Your task to perform on an android device: Go to privacy settings Image 0: 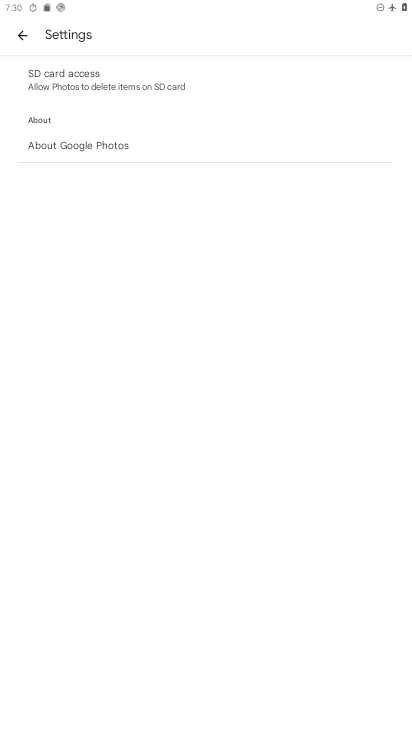
Step 0: press home button
Your task to perform on an android device: Go to privacy settings Image 1: 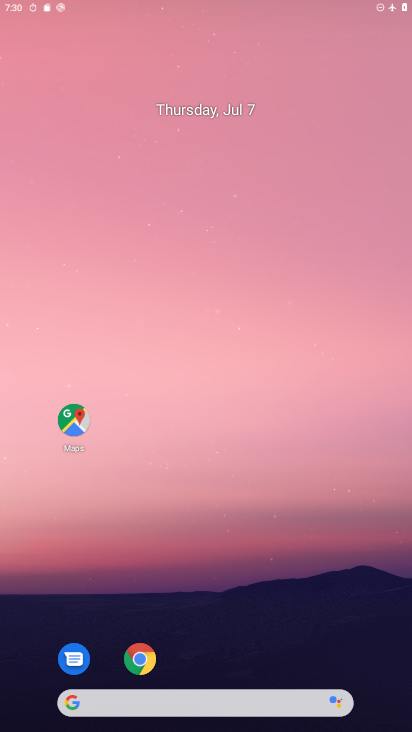
Step 1: drag from (406, 673) to (305, 80)
Your task to perform on an android device: Go to privacy settings Image 2: 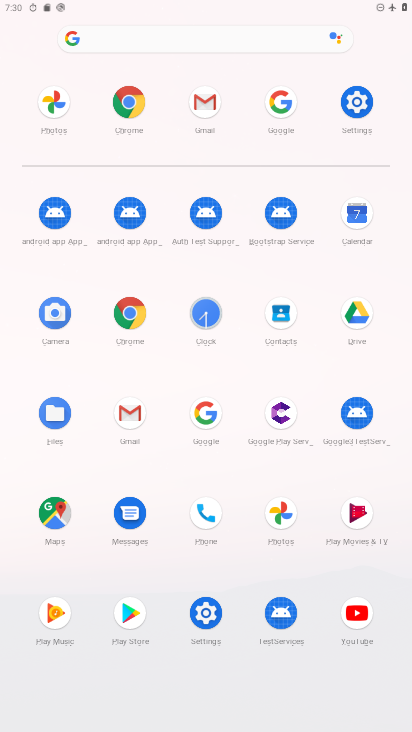
Step 2: click (211, 613)
Your task to perform on an android device: Go to privacy settings Image 3: 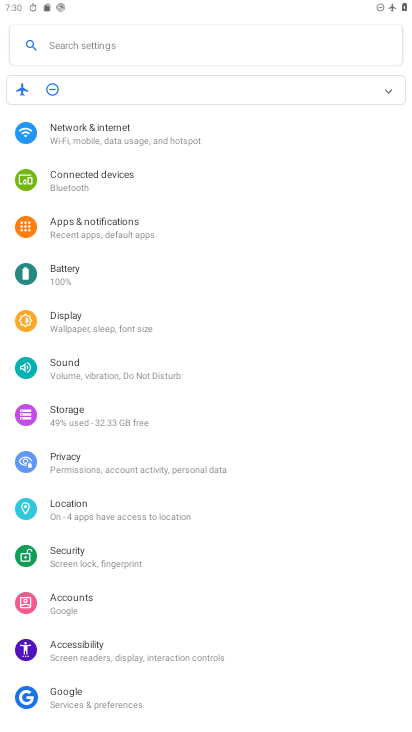
Step 3: click (78, 465)
Your task to perform on an android device: Go to privacy settings Image 4: 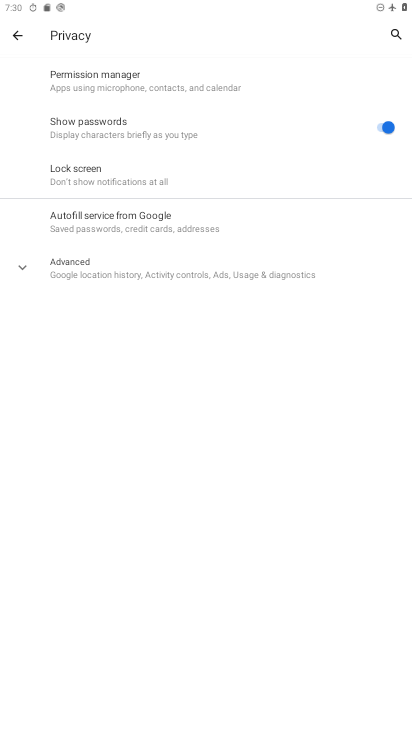
Step 4: task complete